Your task to perform on an android device: empty trash in the gmail app Image 0: 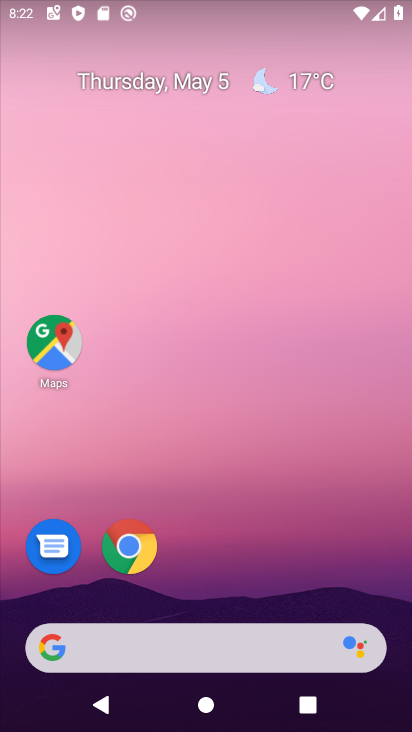
Step 0: drag from (250, 649) to (361, 283)
Your task to perform on an android device: empty trash in the gmail app Image 1: 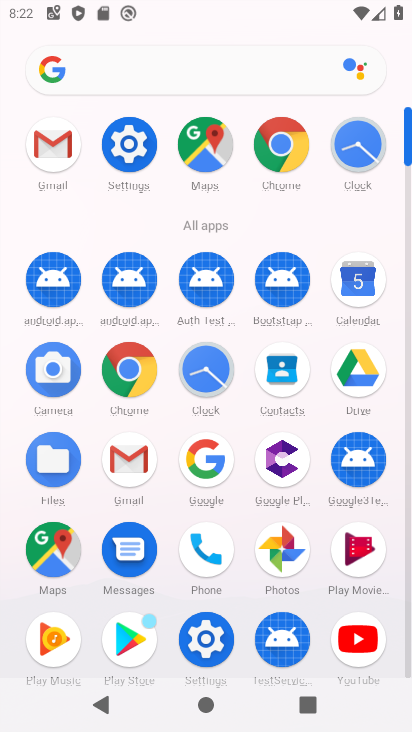
Step 1: click (52, 151)
Your task to perform on an android device: empty trash in the gmail app Image 2: 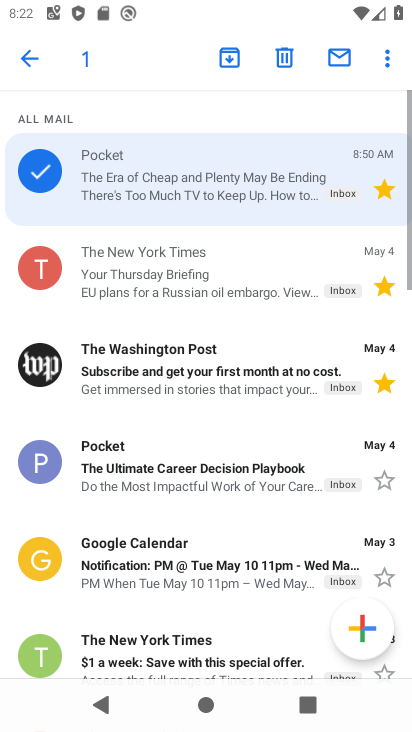
Step 2: click (30, 64)
Your task to perform on an android device: empty trash in the gmail app Image 3: 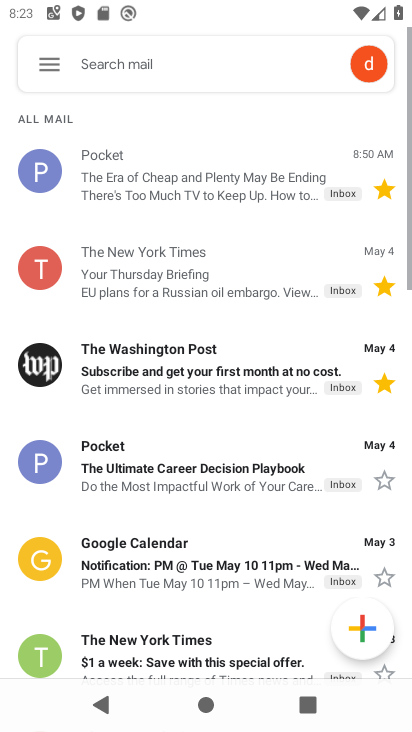
Step 3: click (44, 69)
Your task to perform on an android device: empty trash in the gmail app Image 4: 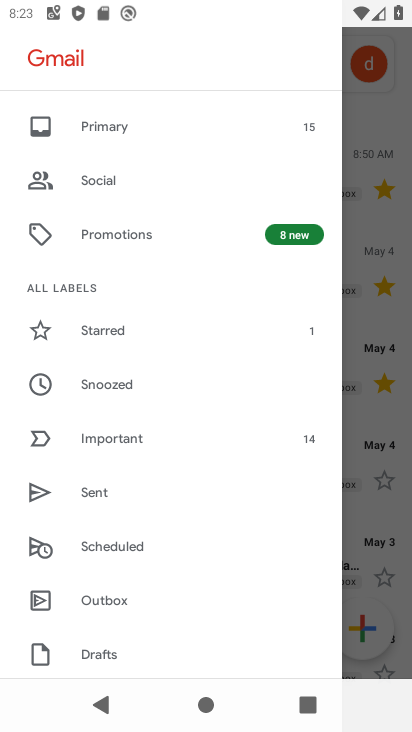
Step 4: drag from (147, 587) to (253, 213)
Your task to perform on an android device: empty trash in the gmail app Image 5: 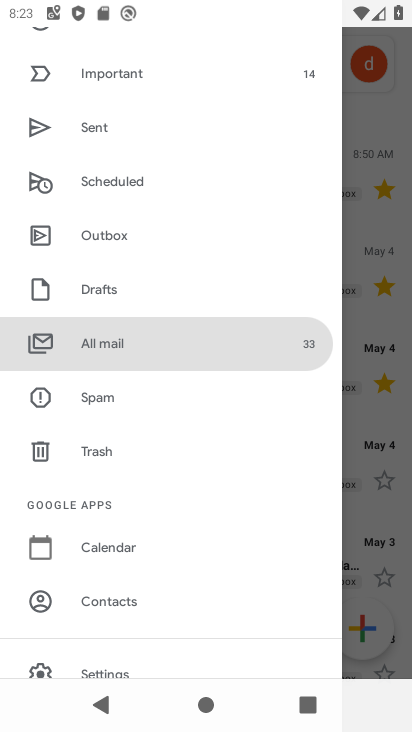
Step 5: click (105, 451)
Your task to perform on an android device: empty trash in the gmail app Image 6: 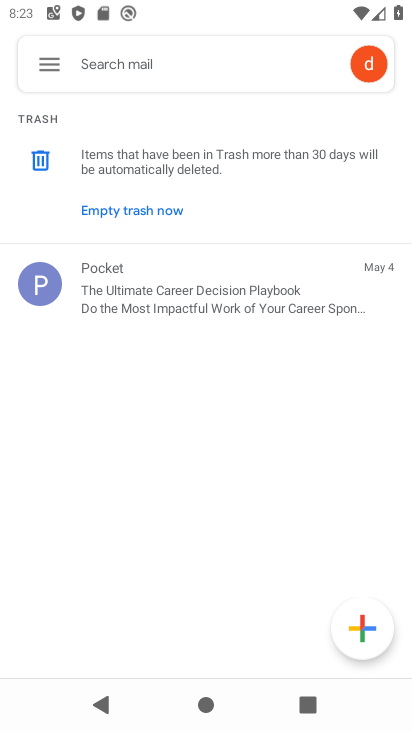
Step 6: click (168, 214)
Your task to perform on an android device: empty trash in the gmail app Image 7: 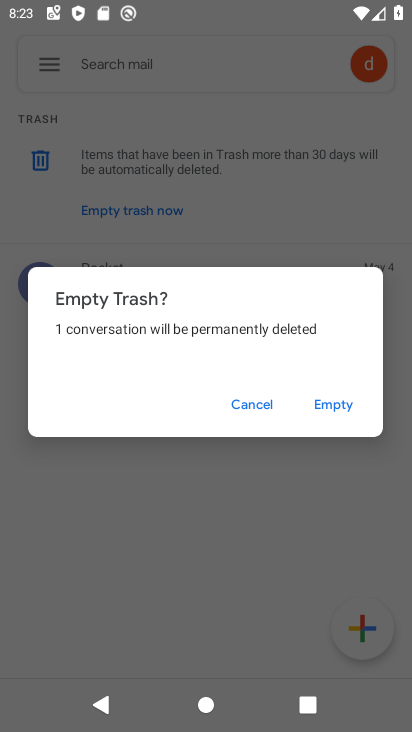
Step 7: click (333, 404)
Your task to perform on an android device: empty trash in the gmail app Image 8: 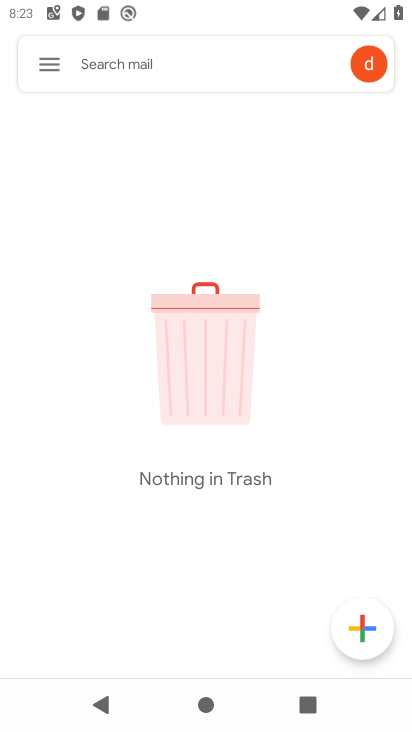
Step 8: task complete